Your task to perform on an android device: Open Google Maps Image 0: 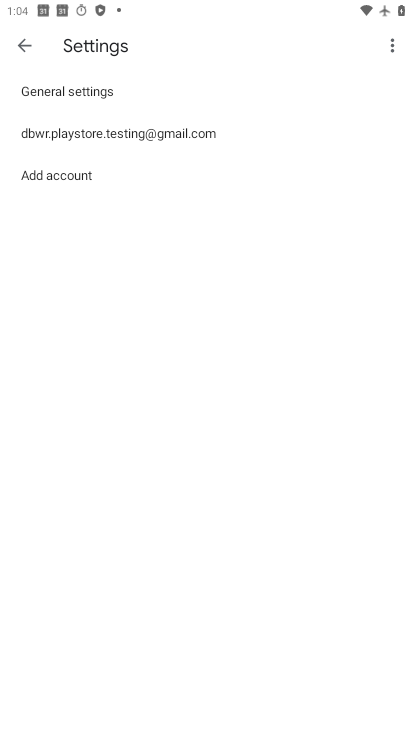
Step 0: press home button
Your task to perform on an android device: Open Google Maps Image 1: 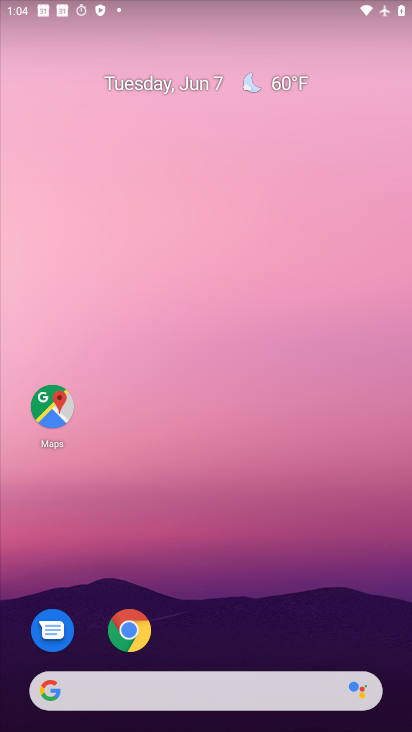
Step 1: drag from (387, 630) to (301, 50)
Your task to perform on an android device: Open Google Maps Image 2: 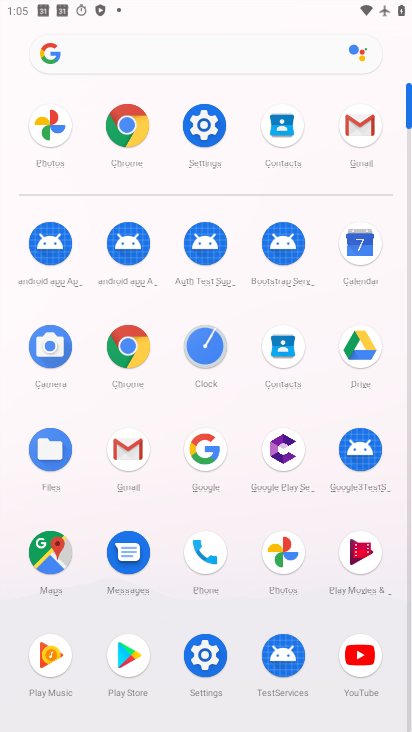
Step 2: click (46, 551)
Your task to perform on an android device: Open Google Maps Image 3: 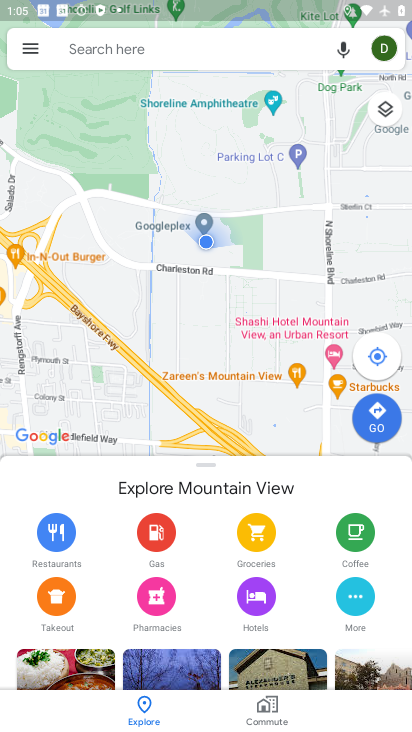
Step 3: task complete